Your task to perform on an android device: turn off notifications in google photos Image 0: 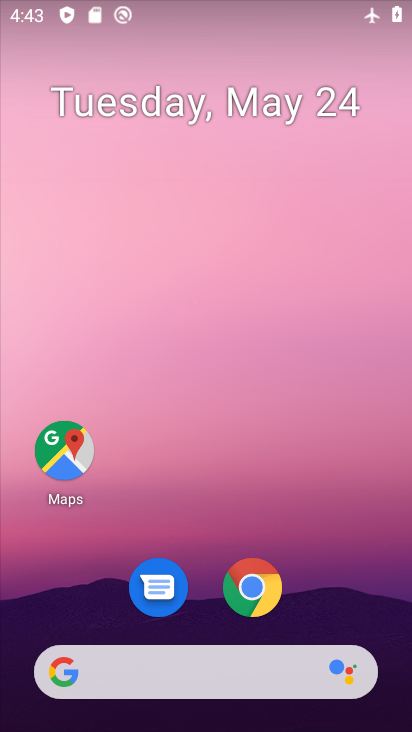
Step 0: drag from (326, 533) to (195, 7)
Your task to perform on an android device: turn off notifications in google photos Image 1: 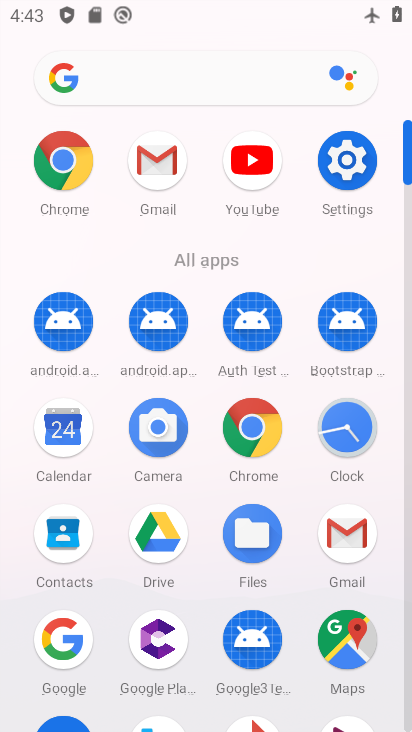
Step 1: click (257, 722)
Your task to perform on an android device: turn off notifications in google photos Image 2: 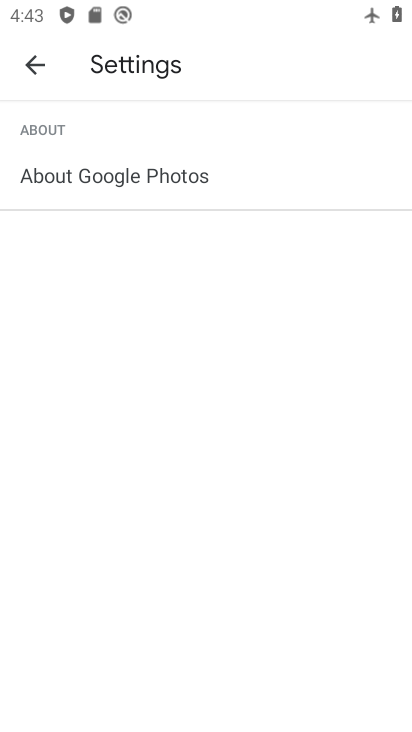
Step 2: click (33, 63)
Your task to perform on an android device: turn off notifications in google photos Image 3: 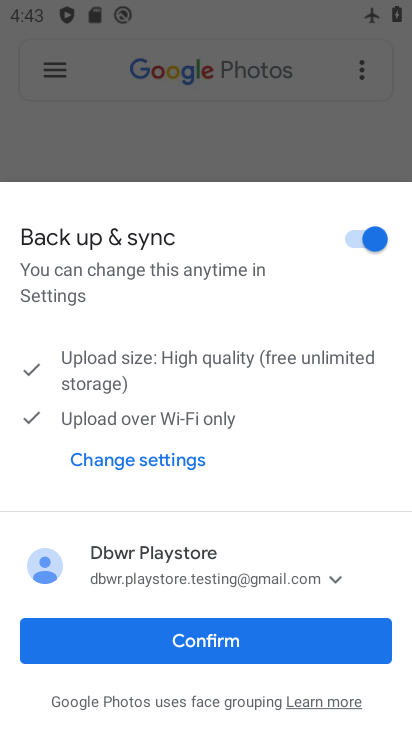
Step 3: click (183, 628)
Your task to perform on an android device: turn off notifications in google photos Image 4: 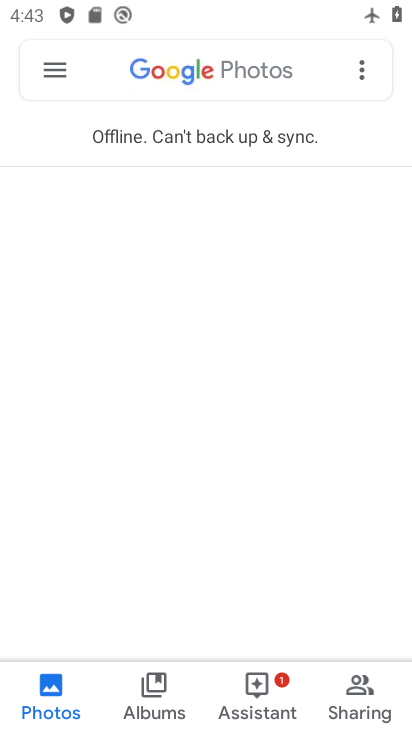
Step 4: click (53, 67)
Your task to perform on an android device: turn off notifications in google photos Image 5: 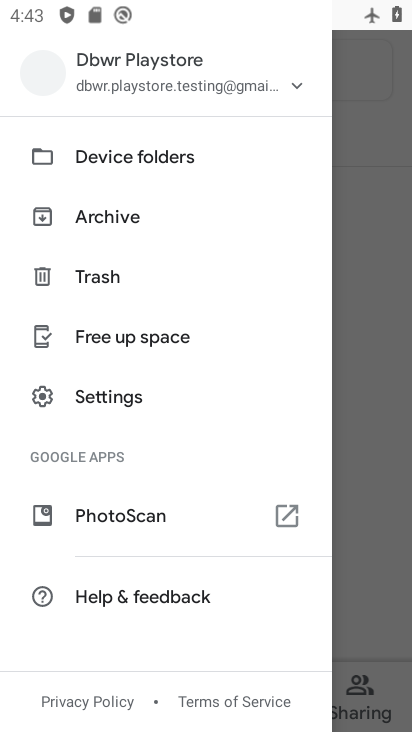
Step 5: click (117, 387)
Your task to perform on an android device: turn off notifications in google photos Image 6: 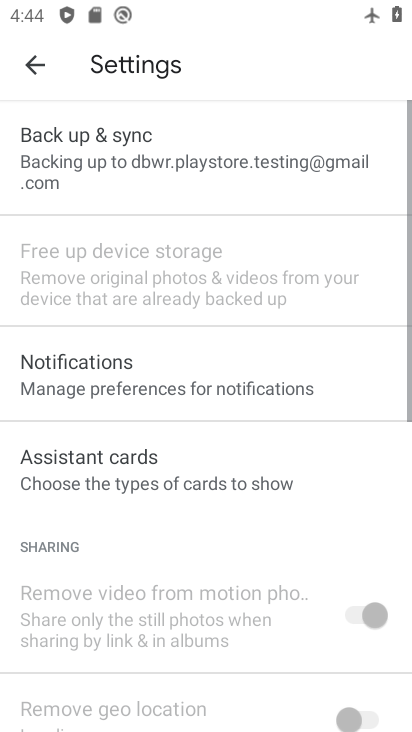
Step 6: click (147, 371)
Your task to perform on an android device: turn off notifications in google photos Image 7: 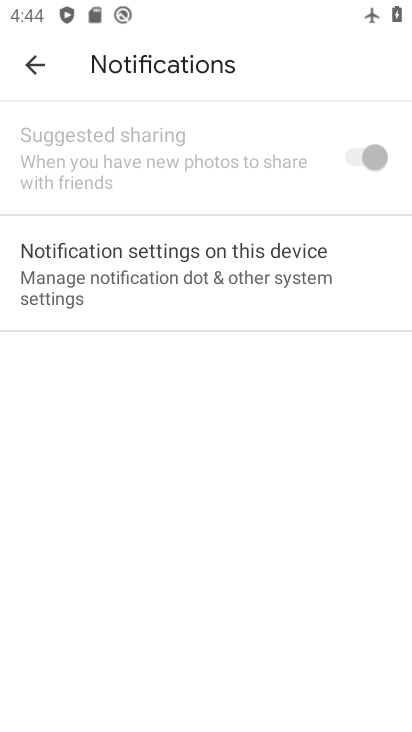
Step 7: click (371, 150)
Your task to perform on an android device: turn off notifications in google photos Image 8: 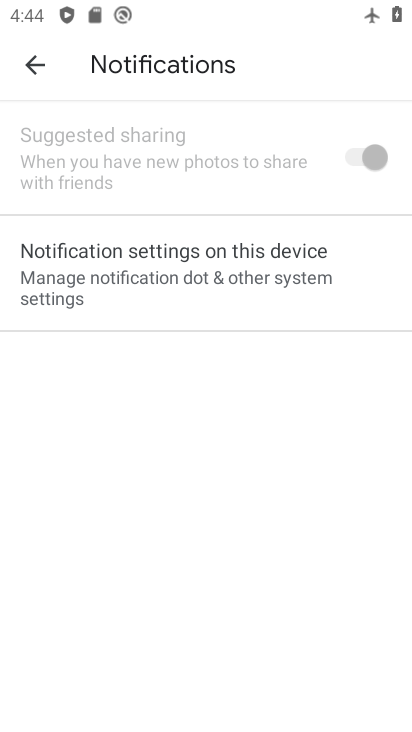
Step 8: click (372, 151)
Your task to perform on an android device: turn off notifications in google photos Image 9: 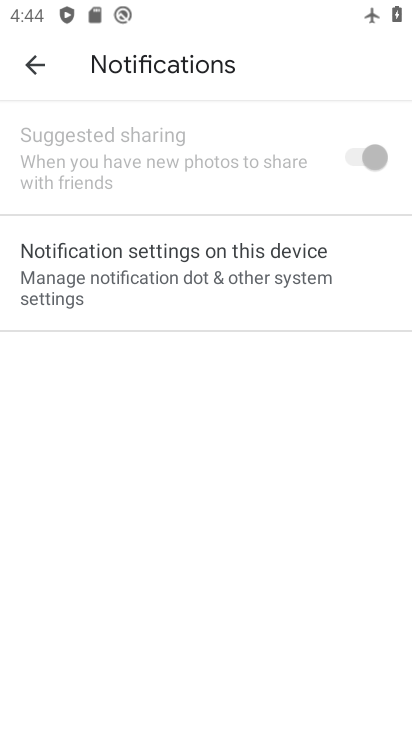
Step 9: task complete